Your task to perform on an android device: Go to Wikipedia Image 0: 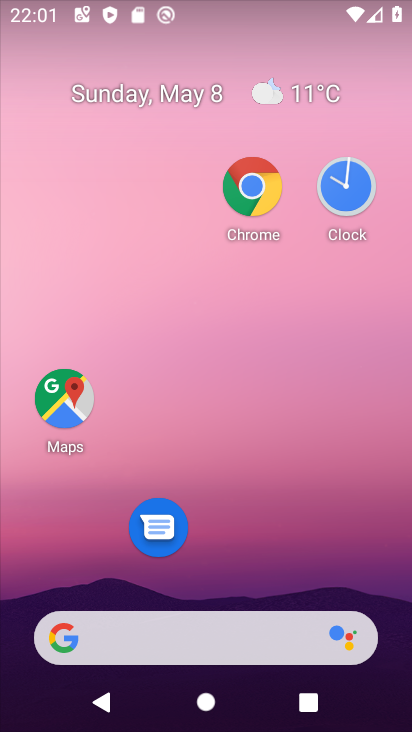
Step 0: click (269, 202)
Your task to perform on an android device: Go to Wikipedia Image 1: 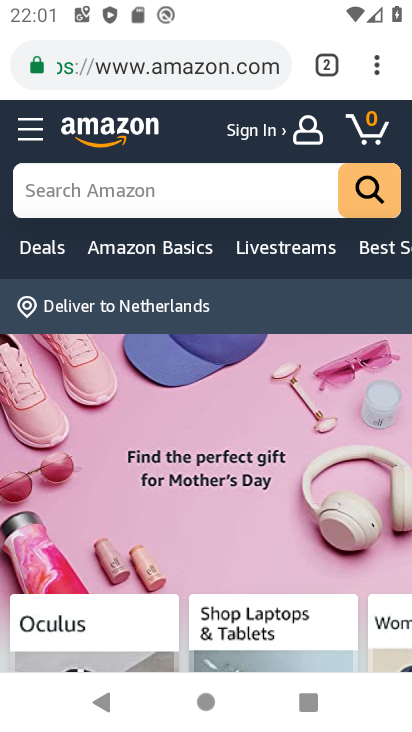
Step 1: click (325, 68)
Your task to perform on an android device: Go to Wikipedia Image 2: 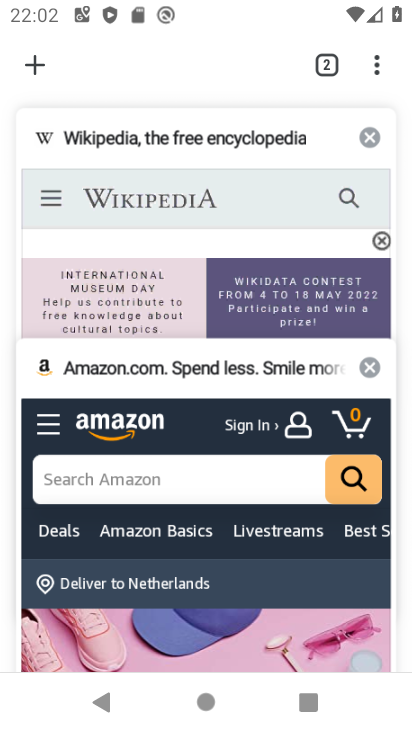
Step 2: click (202, 197)
Your task to perform on an android device: Go to Wikipedia Image 3: 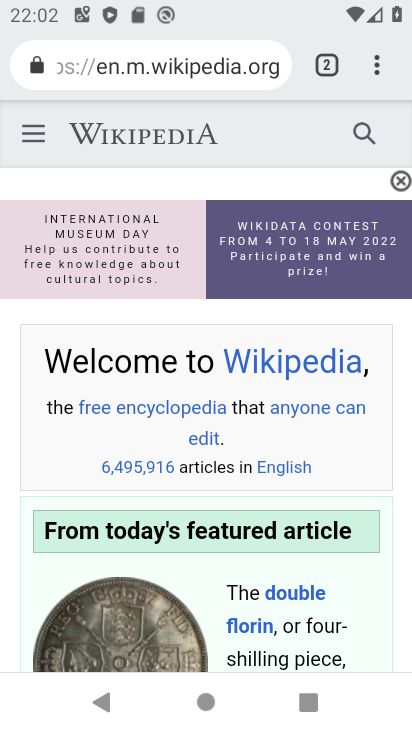
Step 3: task complete